Your task to perform on an android device: refresh tabs in the chrome app Image 0: 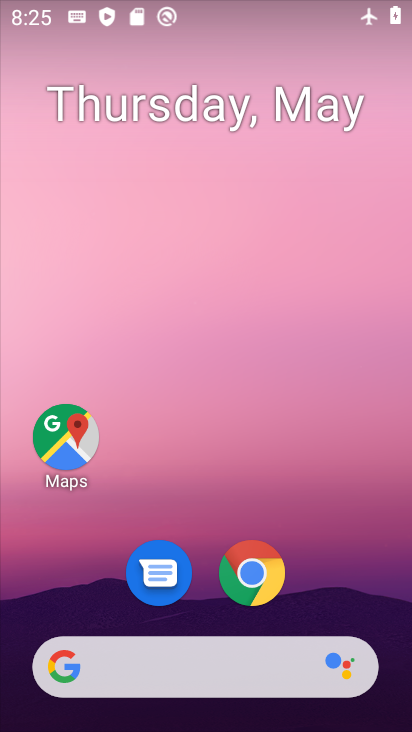
Step 0: click (270, 568)
Your task to perform on an android device: refresh tabs in the chrome app Image 1: 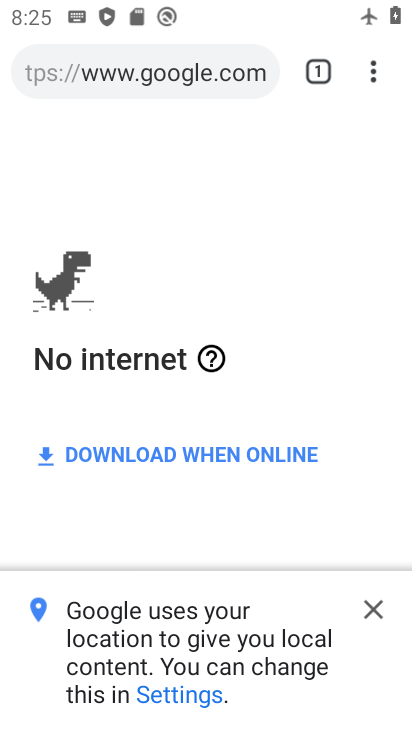
Step 1: click (370, 75)
Your task to perform on an android device: refresh tabs in the chrome app Image 2: 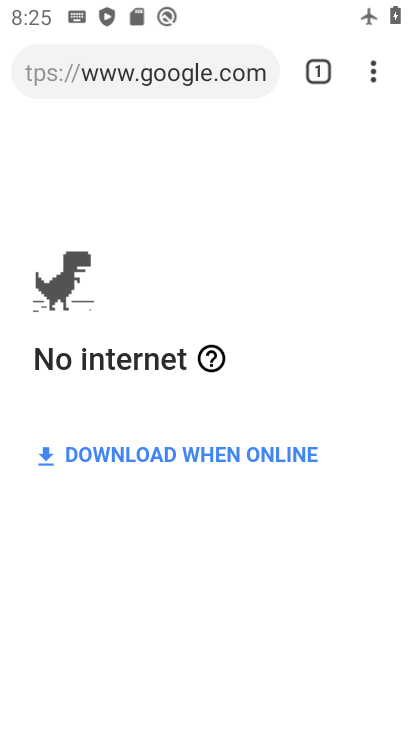
Step 2: click (370, 75)
Your task to perform on an android device: refresh tabs in the chrome app Image 3: 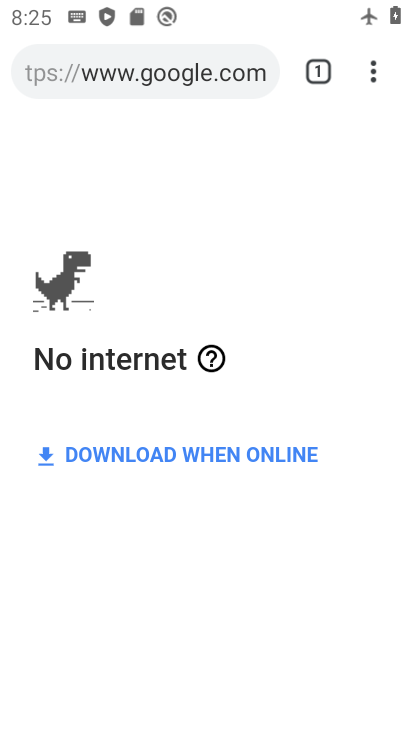
Step 3: task complete